Your task to perform on an android device: delete browsing data in the chrome app Image 0: 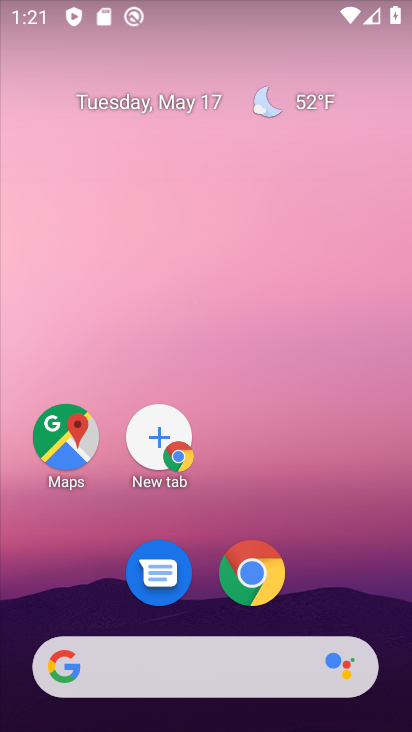
Step 0: click (268, 570)
Your task to perform on an android device: delete browsing data in the chrome app Image 1: 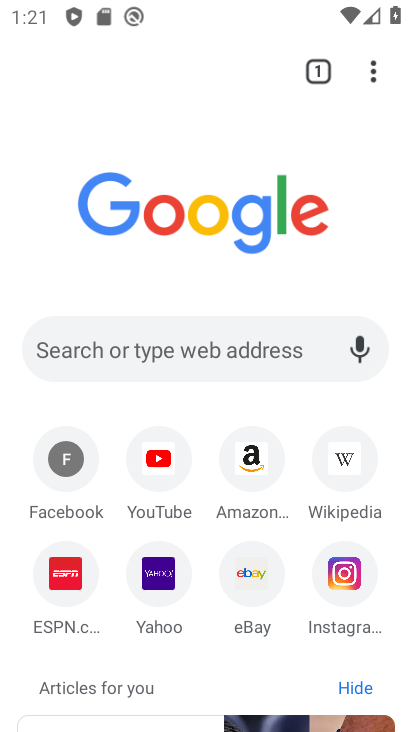
Step 1: task complete